Your task to perform on an android device: check data usage Image 0: 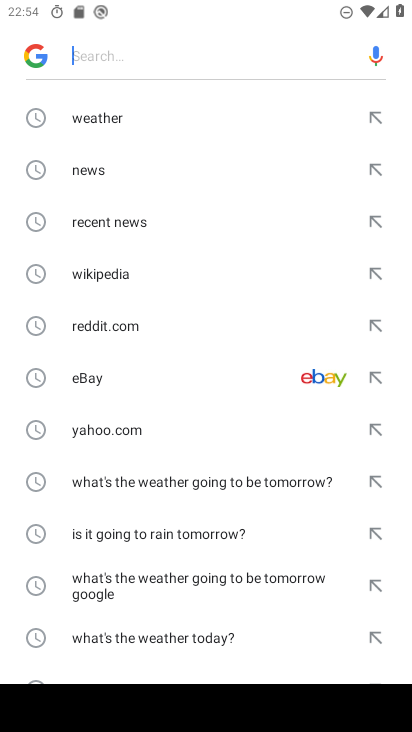
Step 0: press home button
Your task to perform on an android device: check data usage Image 1: 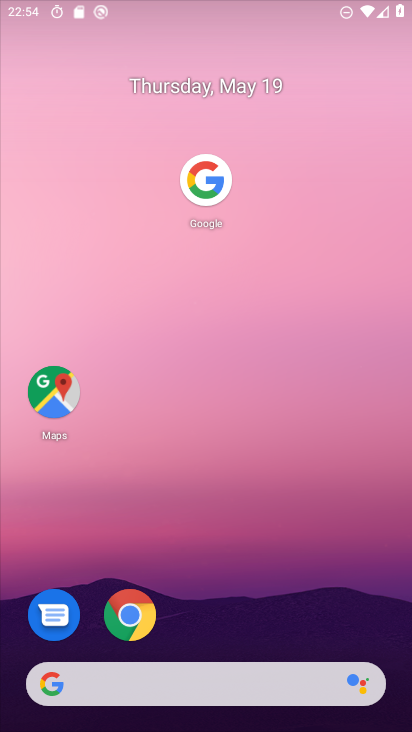
Step 1: drag from (259, 551) to (318, 48)
Your task to perform on an android device: check data usage Image 2: 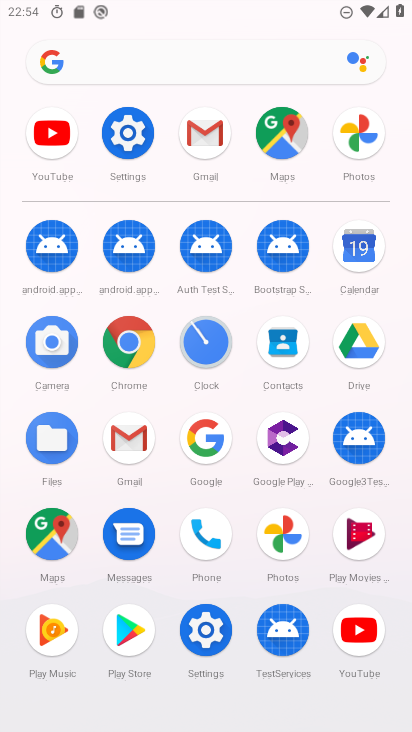
Step 2: click (136, 137)
Your task to perform on an android device: check data usage Image 3: 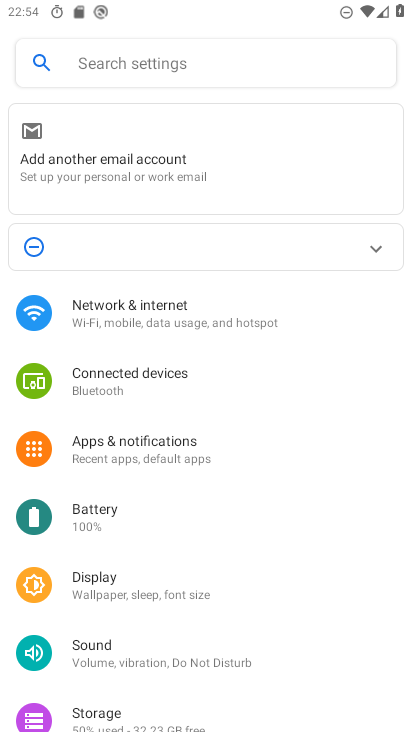
Step 3: drag from (185, 647) to (199, 342)
Your task to perform on an android device: check data usage Image 4: 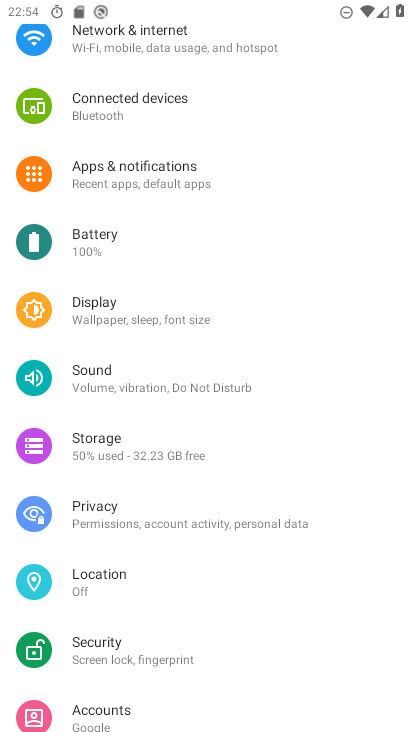
Step 4: drag from (136, 58) to (176, 454)
Your task to perform on an android device: check data usage Image 5: 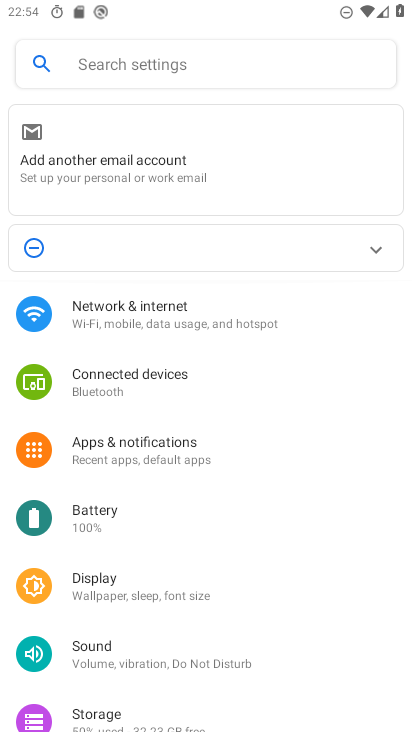
Step 5: click (142, 316)
Your task to perform on an android device: check data usage Image 6: 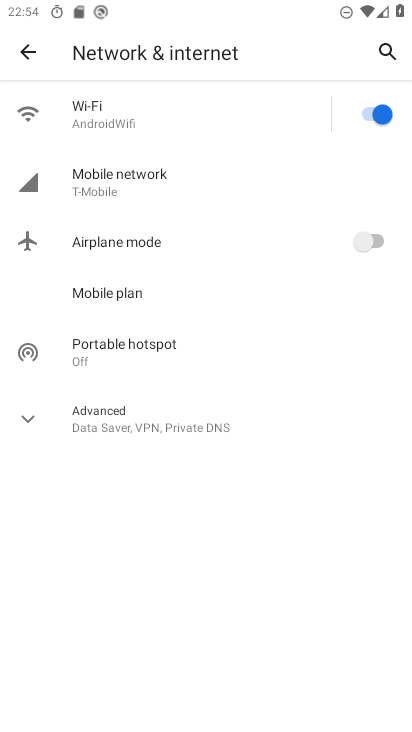
Step 6: click (136, 183)
Your task to perform on an android device: check data usage Image 7: 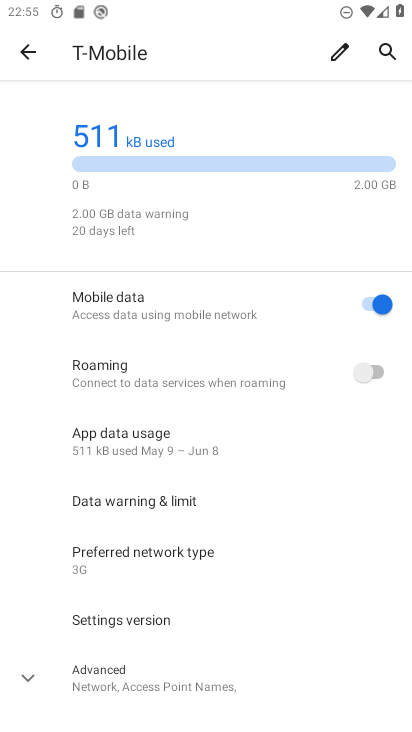
Step 7: task complete